Your task to perform on an android device: toggle wifi Image 0: 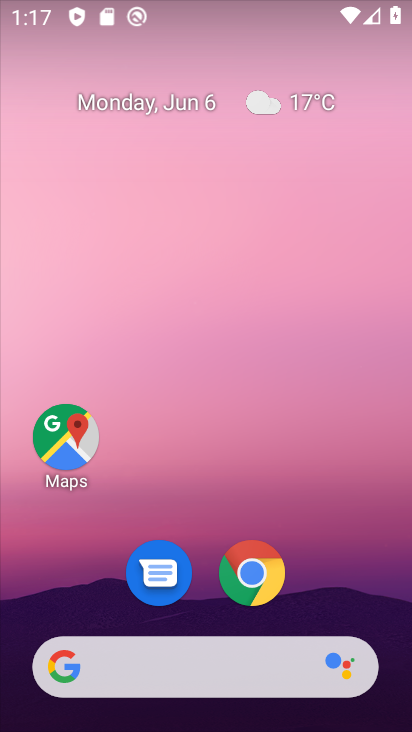
Step 0: drag from (359, 579) to (354, 122)
Your task to perform on an android device: toggle wifi Image 1: 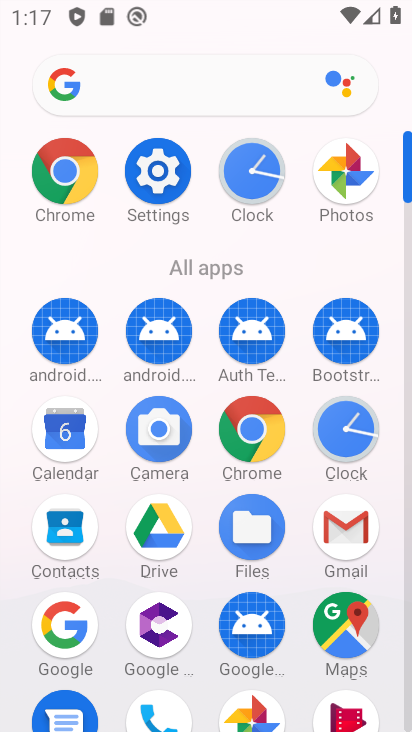
Step 1: click (161, 170)
Your task to perform on an android device: toggle wifi Image 2: 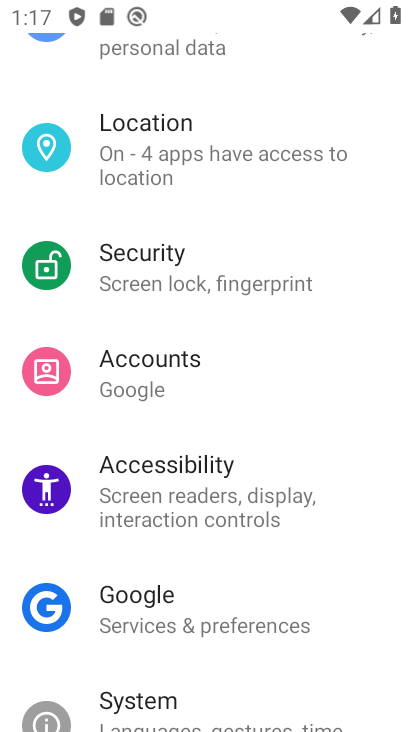
Step 2: drag from (346, 221) to (353, 371)
Your task to perform on an android device: toggle wifi Image 3: 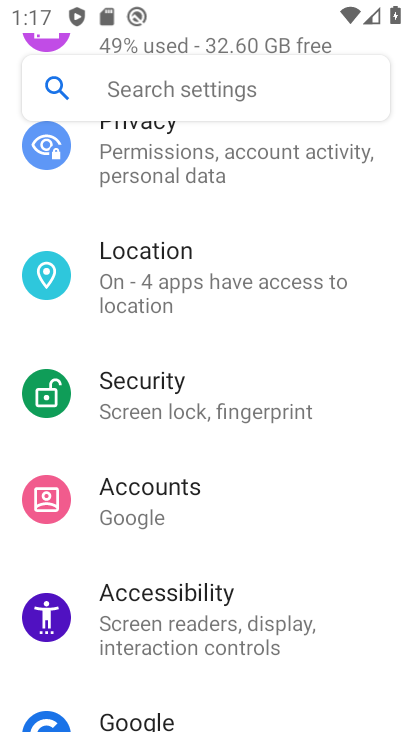
Step 3: drag from (357, 182) to (364, 338)
Your task to perform on an android device: toggle wifi Image 4: 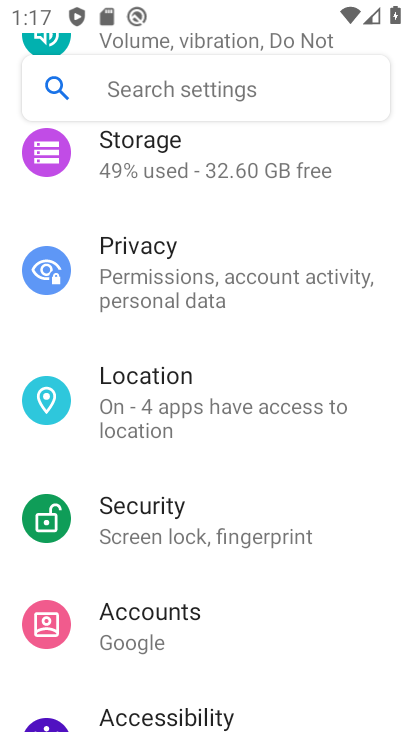
Step 4: drag from (361, 182) to (360, 326)
Your task to perform on an android device: toggle wifi Image 5: 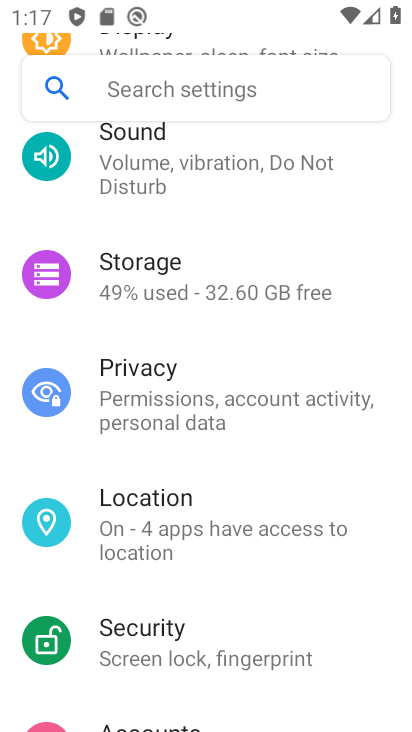
Step 5: drag from (363, 171) to (366, 326)
Your task to perform on an android device: toggle wifi Image 6: 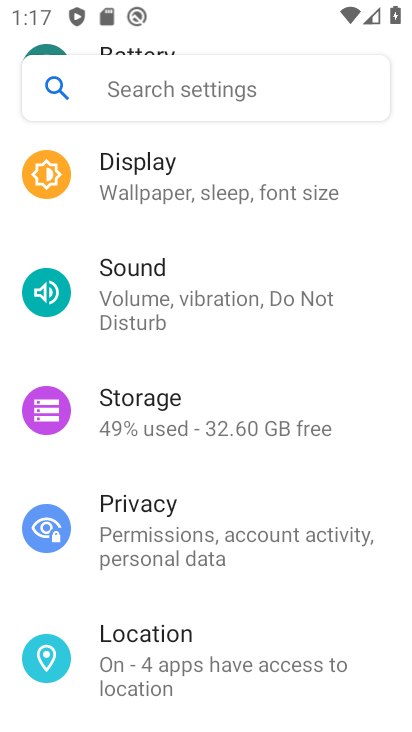
Step 6: drag from (366, 173) to (369, 324)
Your task to perform on an android device: toggle wifi Image 7: 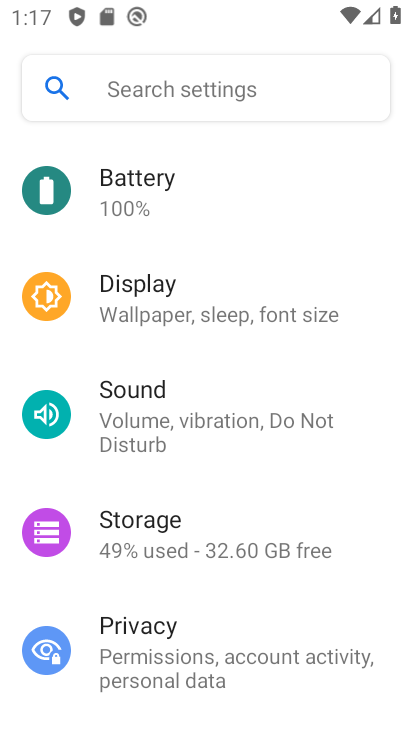
Step 7: drag from (347, 179) to (351, 342)
Your task to perform on an android device: toggle wifi Image 8: 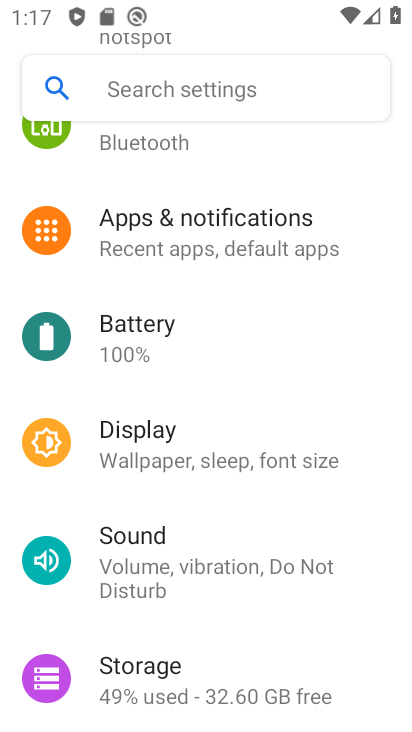
Step 8: drag from (337, 171) to (346, 422)
Your task to perform on an android device: toggle wifi Image 9: 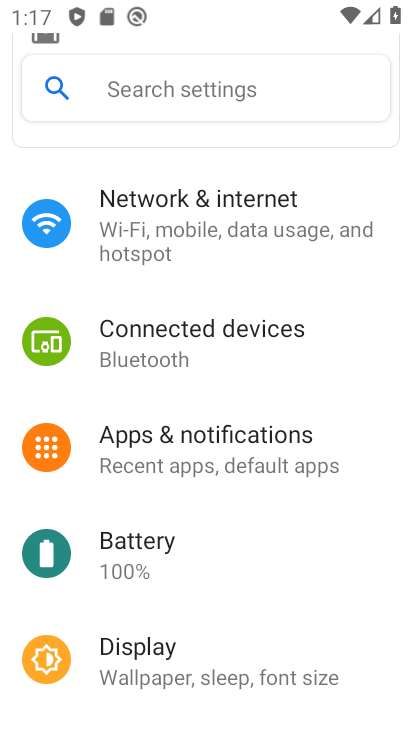
Step 9: click (250, 203)
Your task to perform on an android device: toggle wifi Image 10: 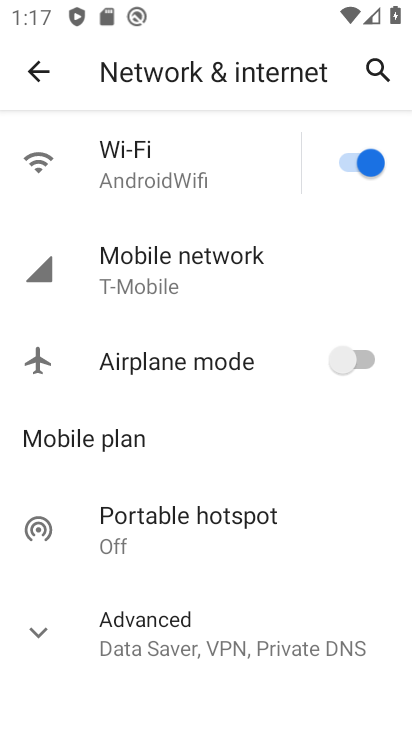
Step 10: click (357, 160)
Your task to perform on an android device: toggle wifi Image 11: 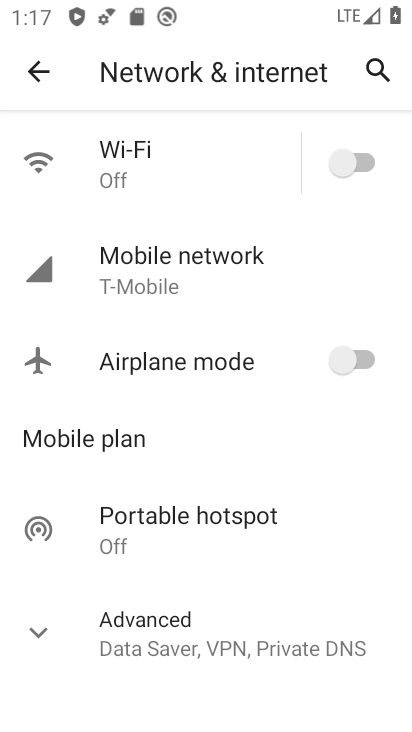
Step 11: task complete